Your task to perform on an android device: Turn off the flashlight Image 0: 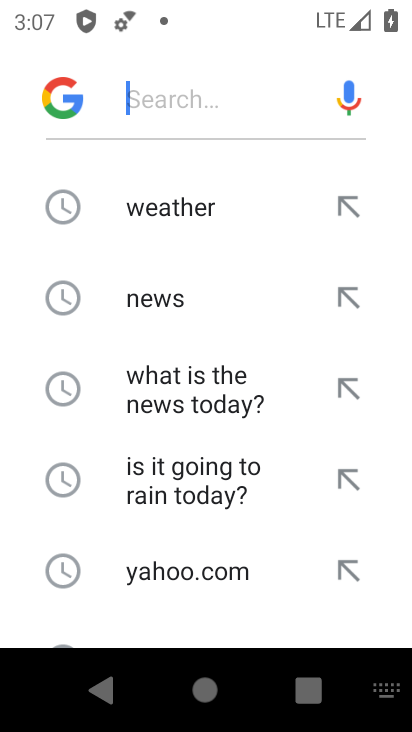
Step 0: press home button
Your task to perform on an android device: Turn off the flashlight Image 1: 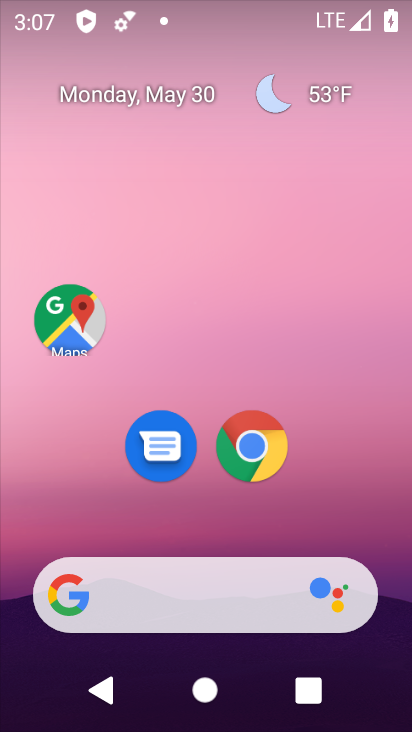
Step 1: drag from (348, 497) to (315, 249)
Your task to perform on an android device: Turn off the flashlight Image 2: 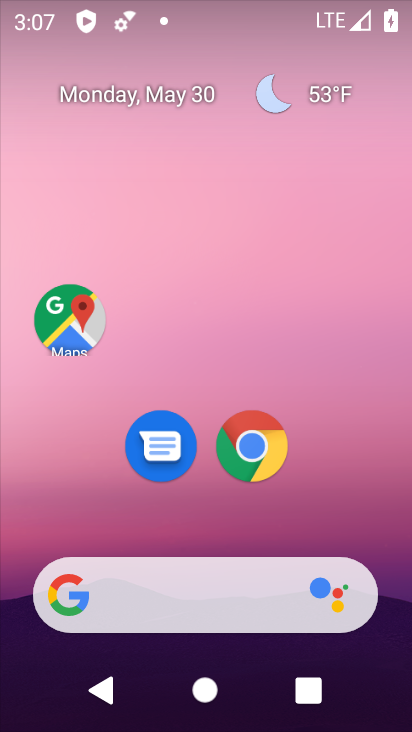
Step 2: drag from (345, 531) to (286, 248)
Your task to perform on an android device: Turn off the flashlight Image 3: 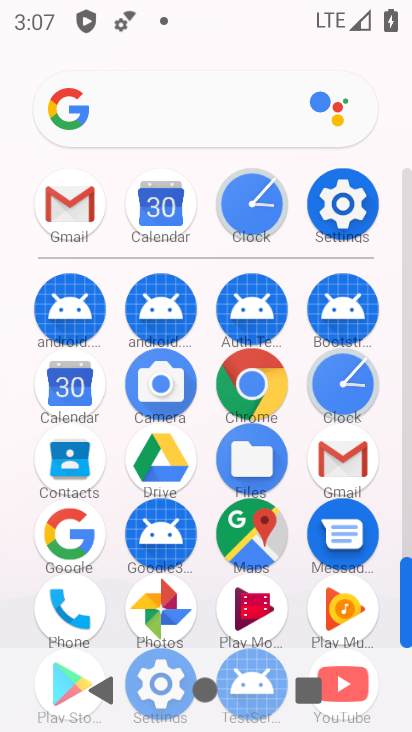
Step 3: click (344, 204)
Your task to perform on an android device: Turn off the flashlight Image 4: 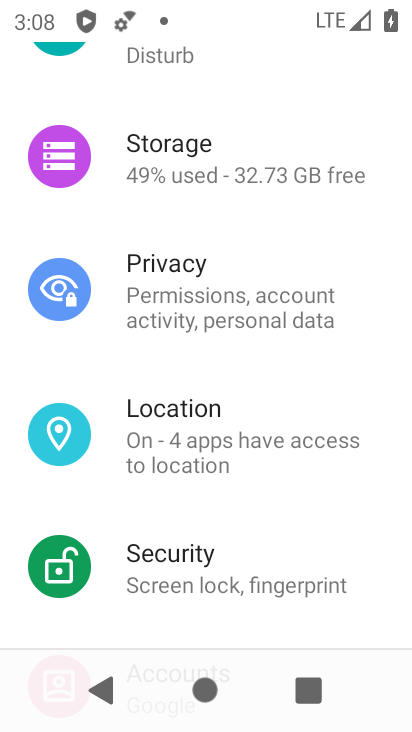
Step 4: drag from (294, 235) to (301, 373)
Your task to perform on an android device: Turn off the flashlight Image 5: 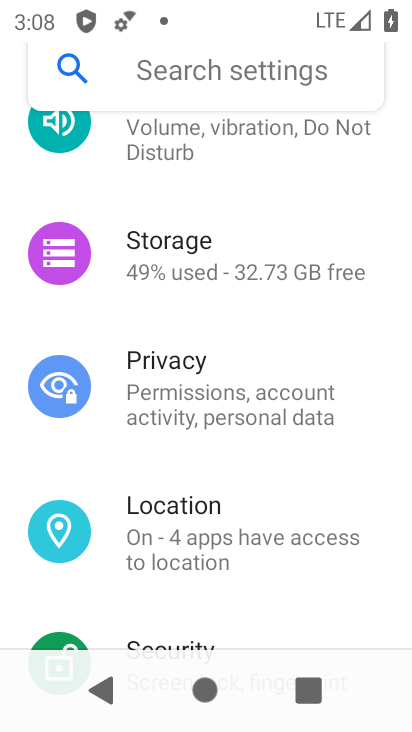
Step 5: drag from (261, 211) to (266, 324)
Your task to perform on an android device: Turn off the flashlight Image 6: 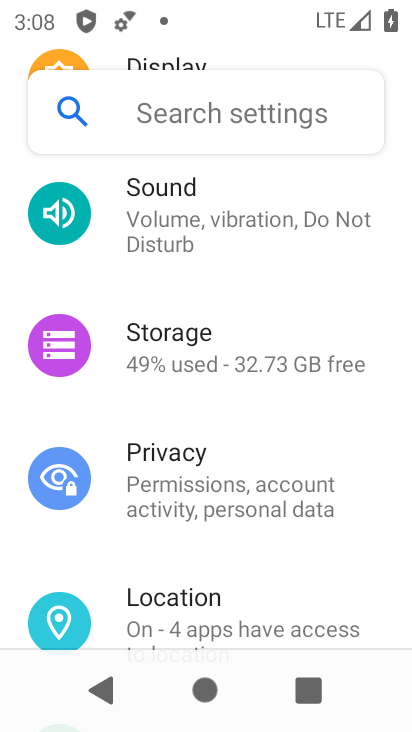
Step 6: drag from (242, 230) to (220, 373)
Your task to perform on an android device: Turn off the flashlight Image 7: 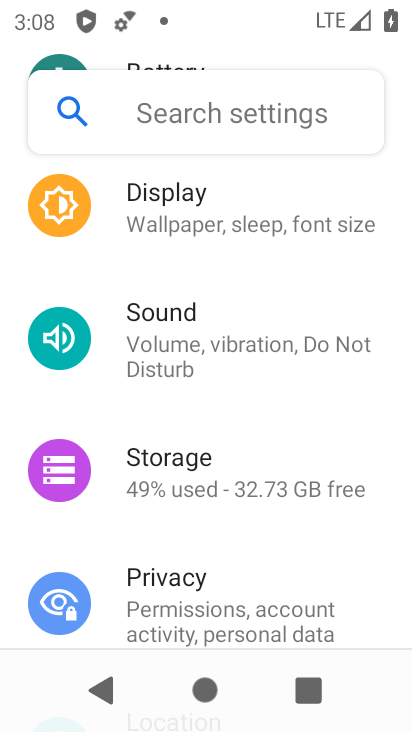
Step 7: drag from (194, 268) to (190, 381)
Your task to perform on an android device: Turn off the flashlight Image 8: 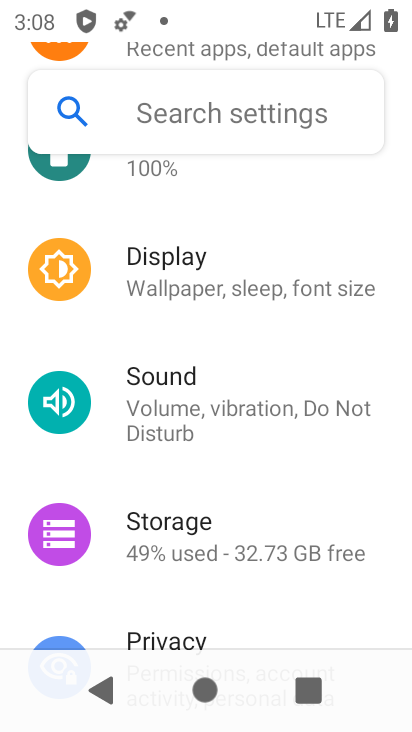
Step 8: drag from (198, 245) to (204, 365)
Your task to perform on an android device: Turn off the flashlight Image 9: 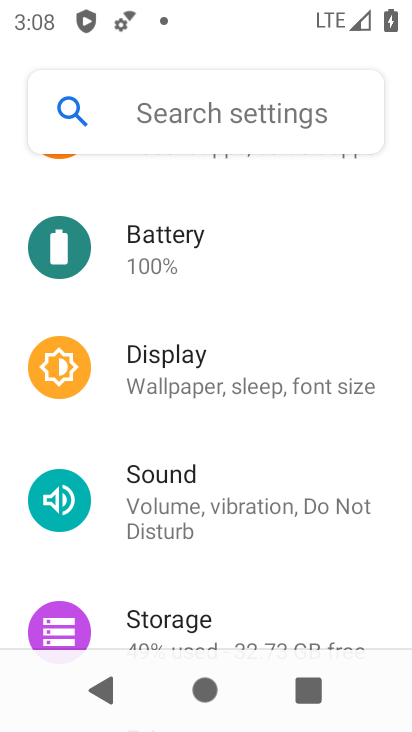
Step 9: click (319, 393)
Your task to perform on an android device: Turn off the flashlight Image 10: 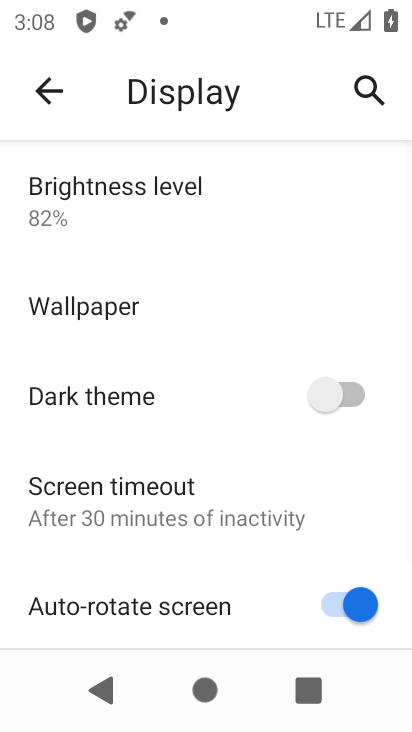
Step 10: task complete